Your task to perform on an android device: Open Google Maps and go to "Timeline" Image 0: 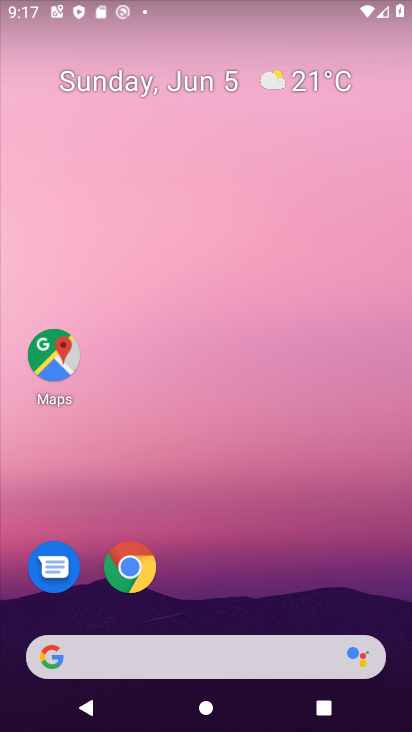
Step 0: drag from (179, 638) to (204, 345)
Your task to perform on an android device: Open Google Maps and go to "Timeline" Image 1: 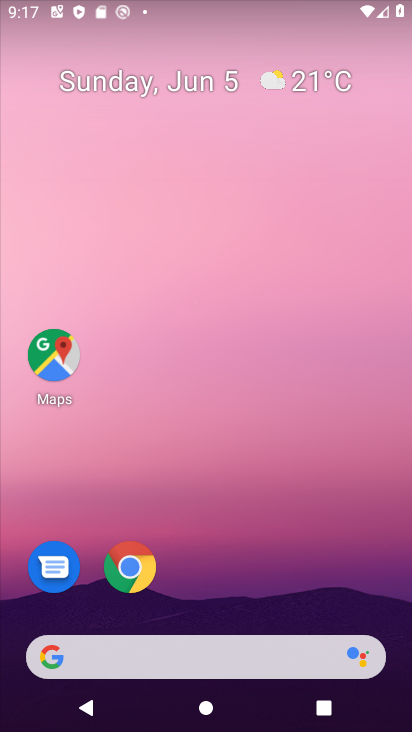
Step 1: drag from (221, 632) to (219, 239)
Your task to perform on an android device: Open Google Maps and go to "Timeline" Image 2: 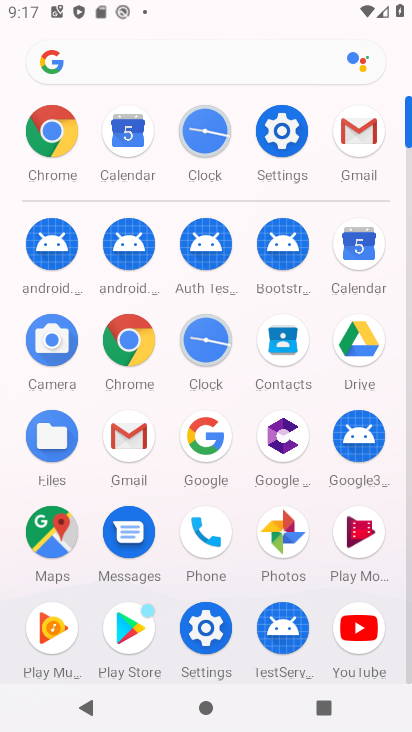
Step 2: click (30, 527)
Your task to perform on an android device: Open Google Maps and go to "Timeline" Image 3: 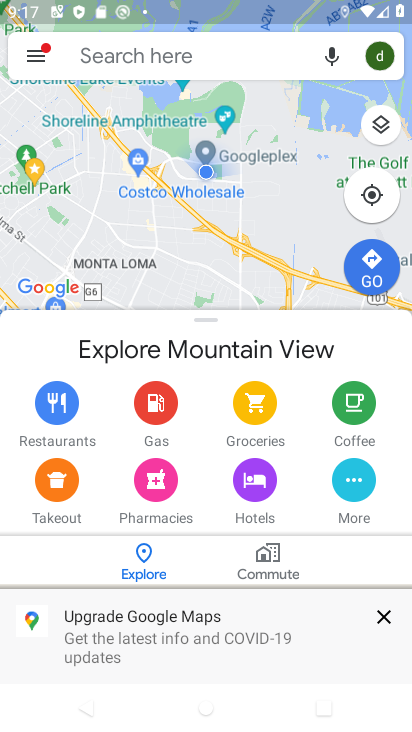
Step 3: click (31, 61)
Your task to perform on an android device: Open Google Maps and go to "Timeline" Image 4: 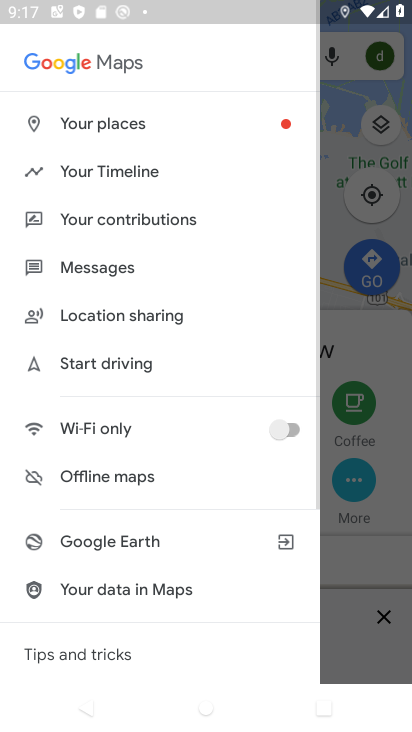
Step 4: click (91, 165)
Your task to perform on an android device: Open Google Maps and go to "Timeline" Image 5: 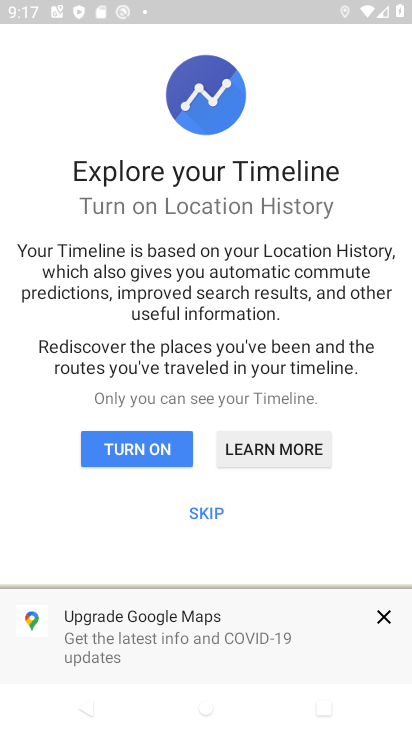
Step 5: click (140, 452)
Your task to perform on an android device: Open Google Maps and go to "Timeline" Image 6: 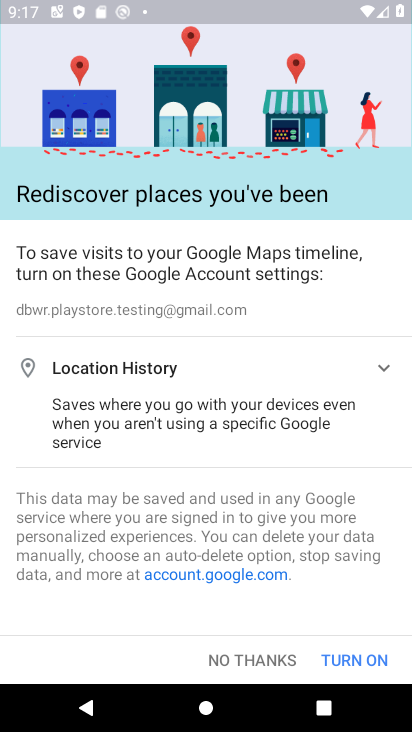
Step 6: task complete